Your task to perform on an android device: see tabs open on other devices in the chrome app Image 0: 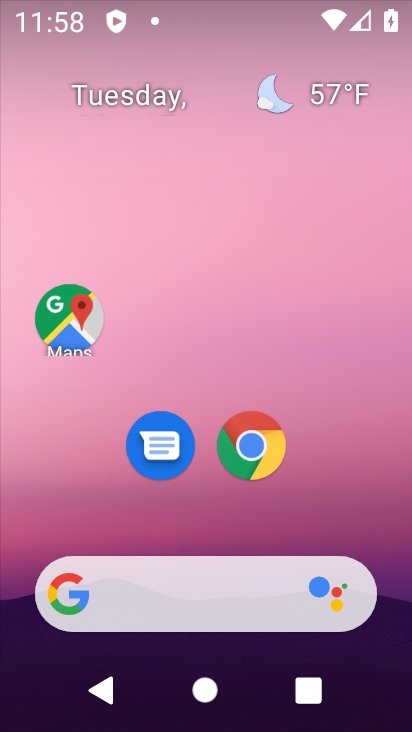
Step 0: drag from (381, 482) to (368, 133)
Your task to perform on an android device: see tabs open on other devices in the chrome app Image 1: 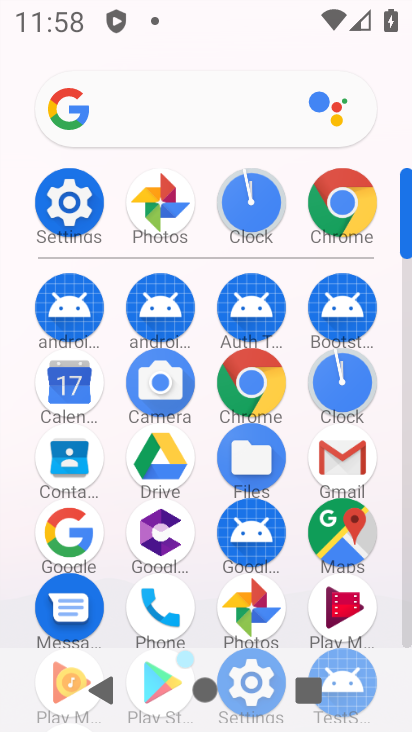
Step 1: click (356, 219)
Your task to perform on an android device: see tabs open on other devices in the chrome app Image 2: 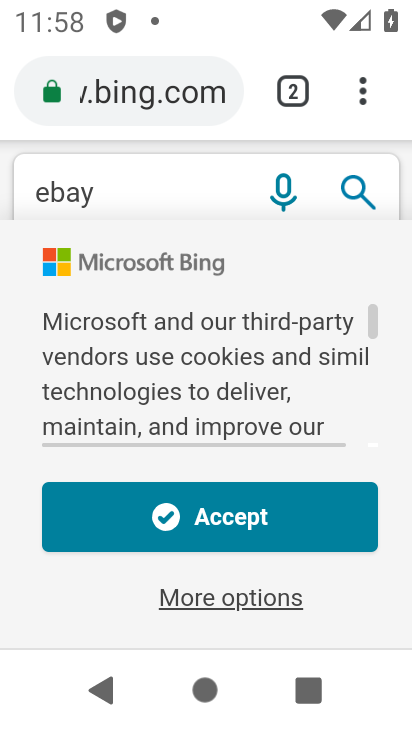
Step 2: click (367, 87)
Your task to perform on an android device: see tabs open on other devices in the chrome app Image 3: 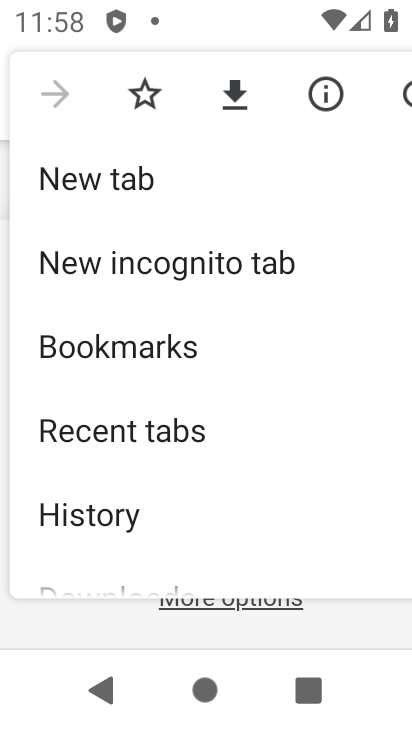
Step 3: drag from (283, 452) to (271, 329)
Your task to perform on an android device: see tabs open on other devices in the chrome app Image 4: 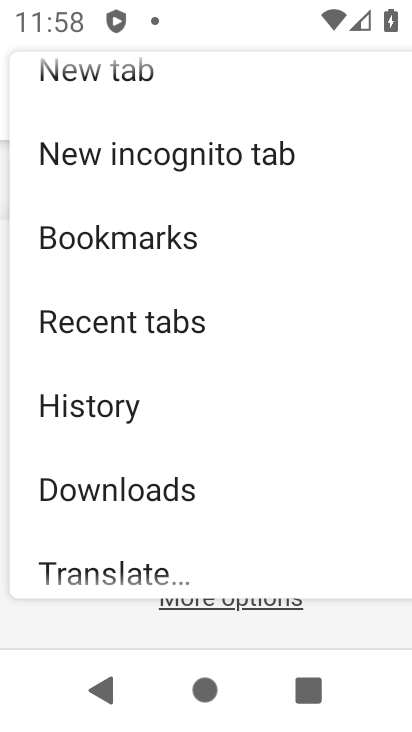
Step 4: click (133, 324)
Your task to perform on an android device: see tabs open on other devices in the chrome app Image 5: 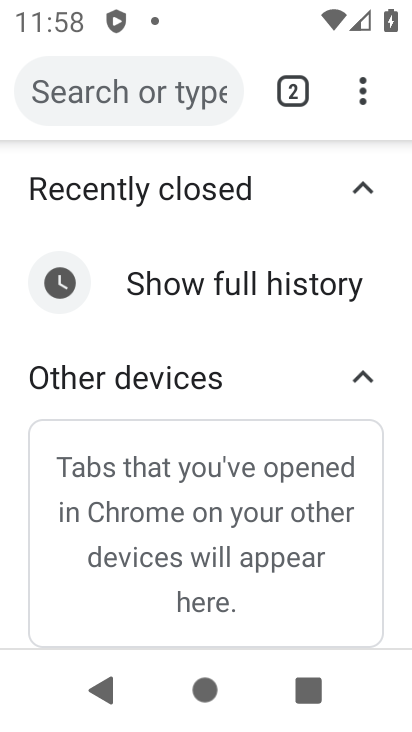
Step 5: click (288, 95)
Your task to perform on an android device: see tabs open on other devices in the chrome app Image 6: 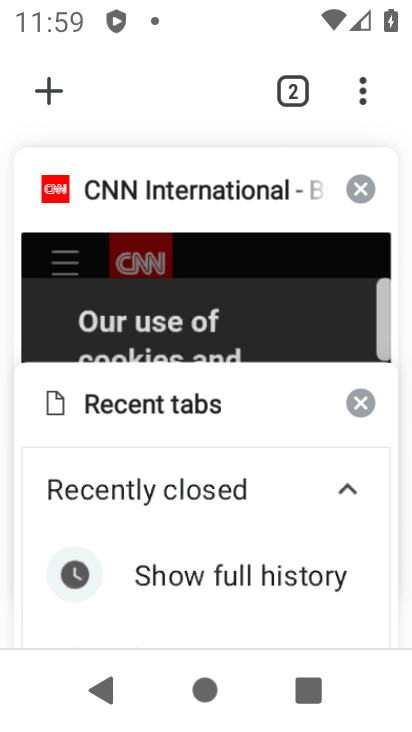
Step 6: task complete